Your task to perform on an android device: delete browsing data in the chrome app Image 0: 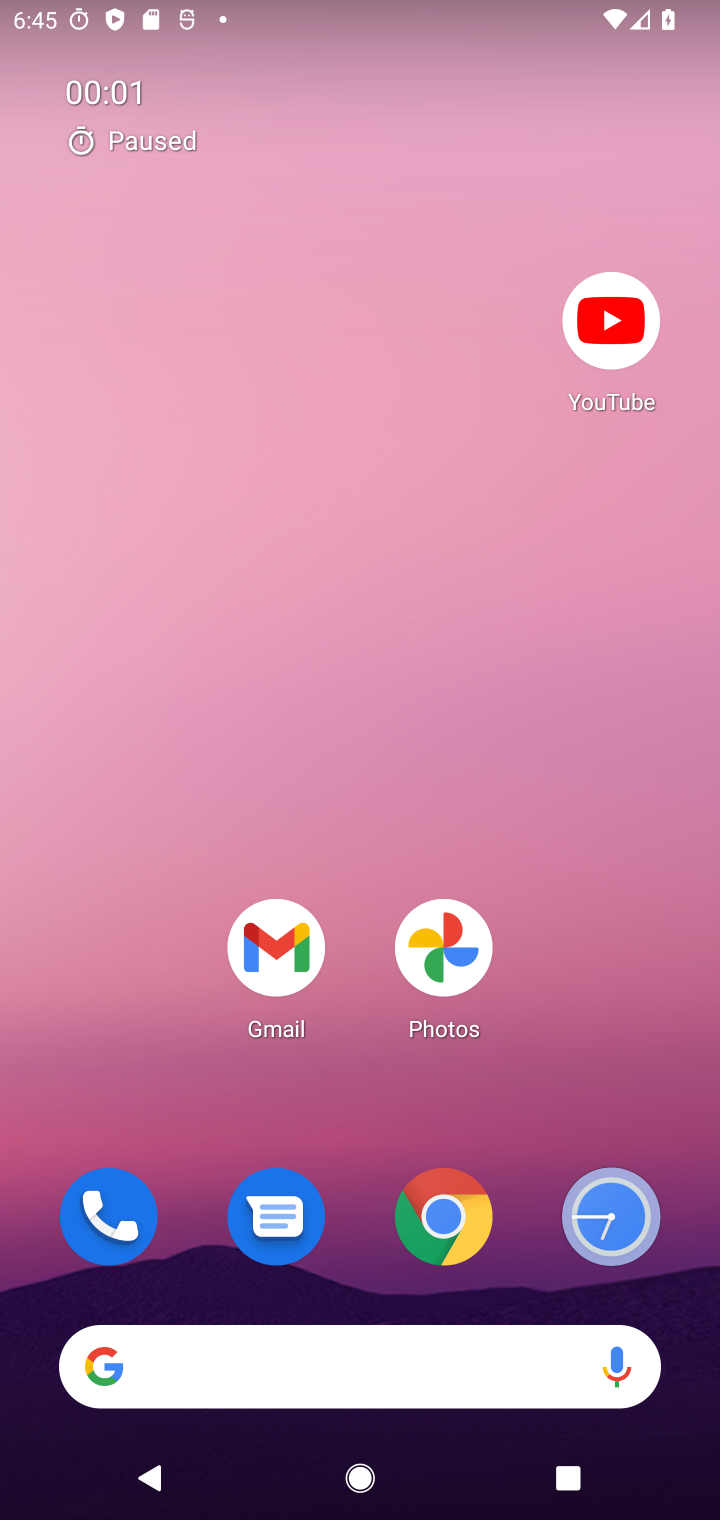
Step 0: drag from (591, 1030) to (515, 7)
Your task to perform on an android device: delete browsing data in the chrome app Image 1: 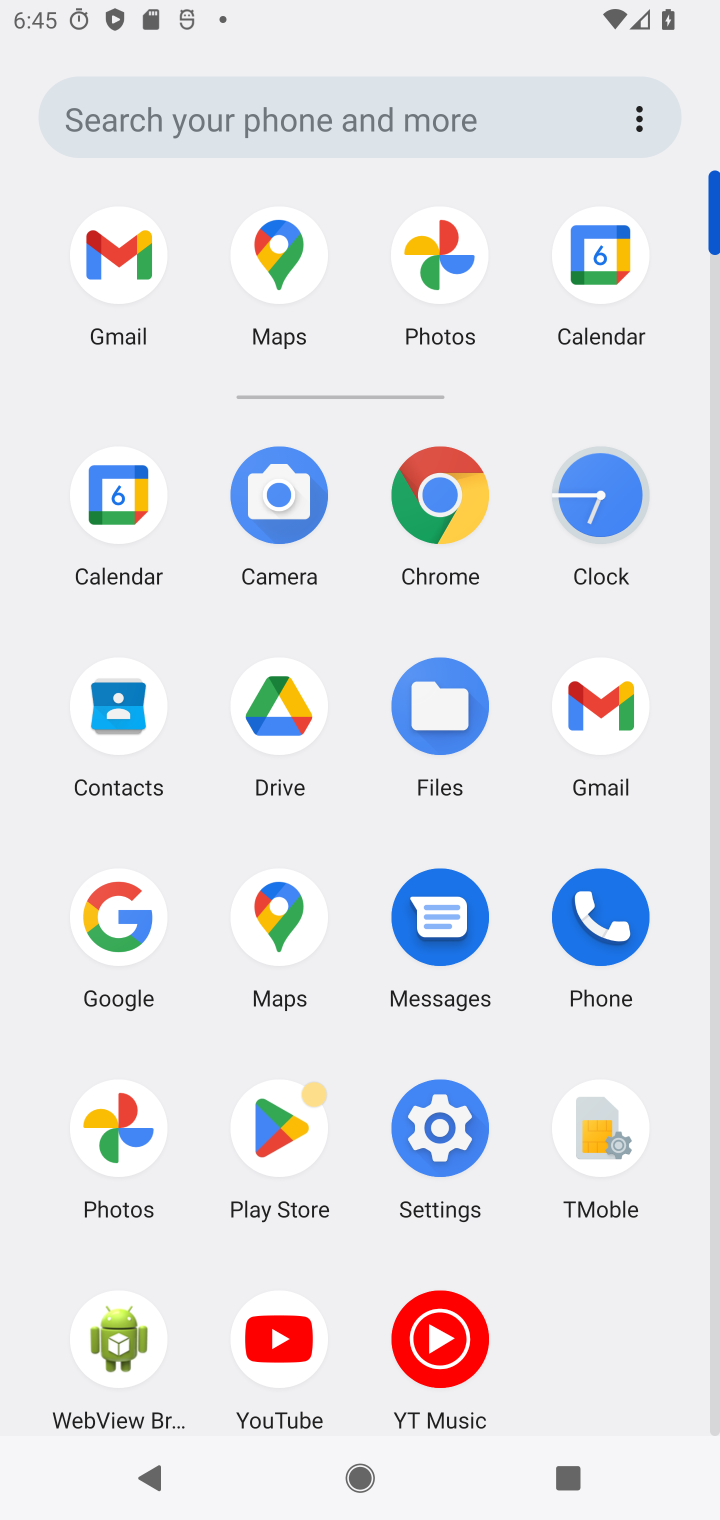
Step 1: click (444, 495)
Your task to perform on an android device: delete browsing data in the chrome app Image 2: 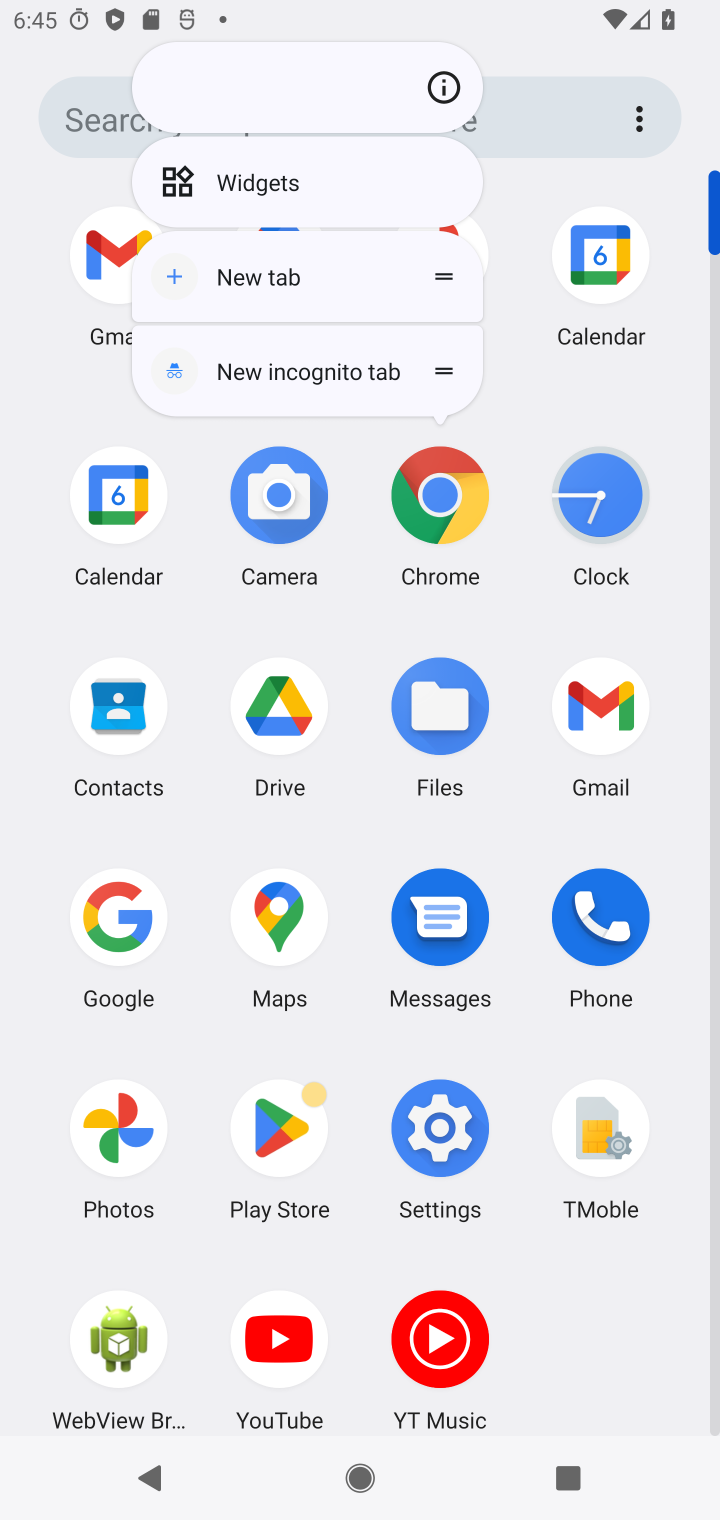
Step 2: click (444, 495)
Your task to perform on an android device: delete browsing data in the chrome app Image 3: 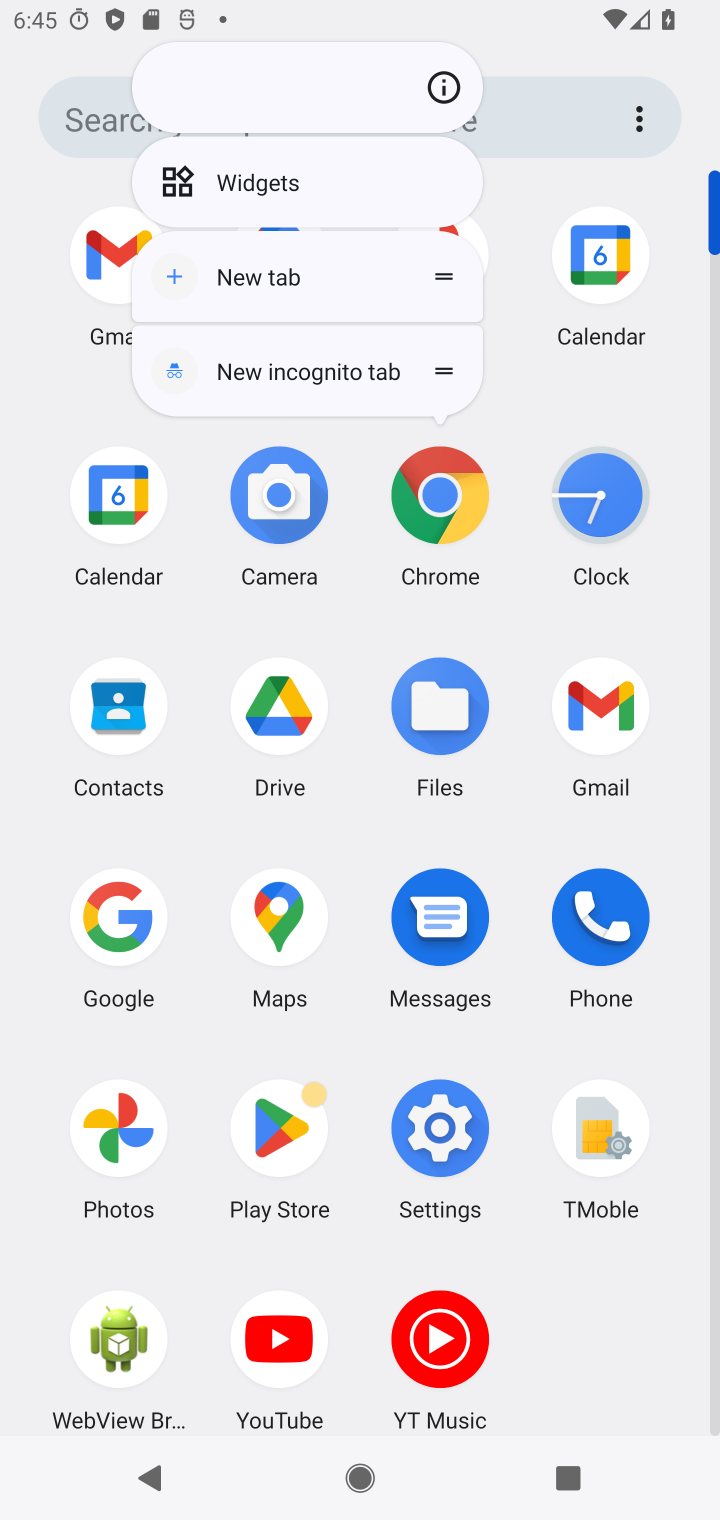
Step 3: click (338, 621)
Your task to perform on an android device: delete browsing data in the chrome app Image 4: 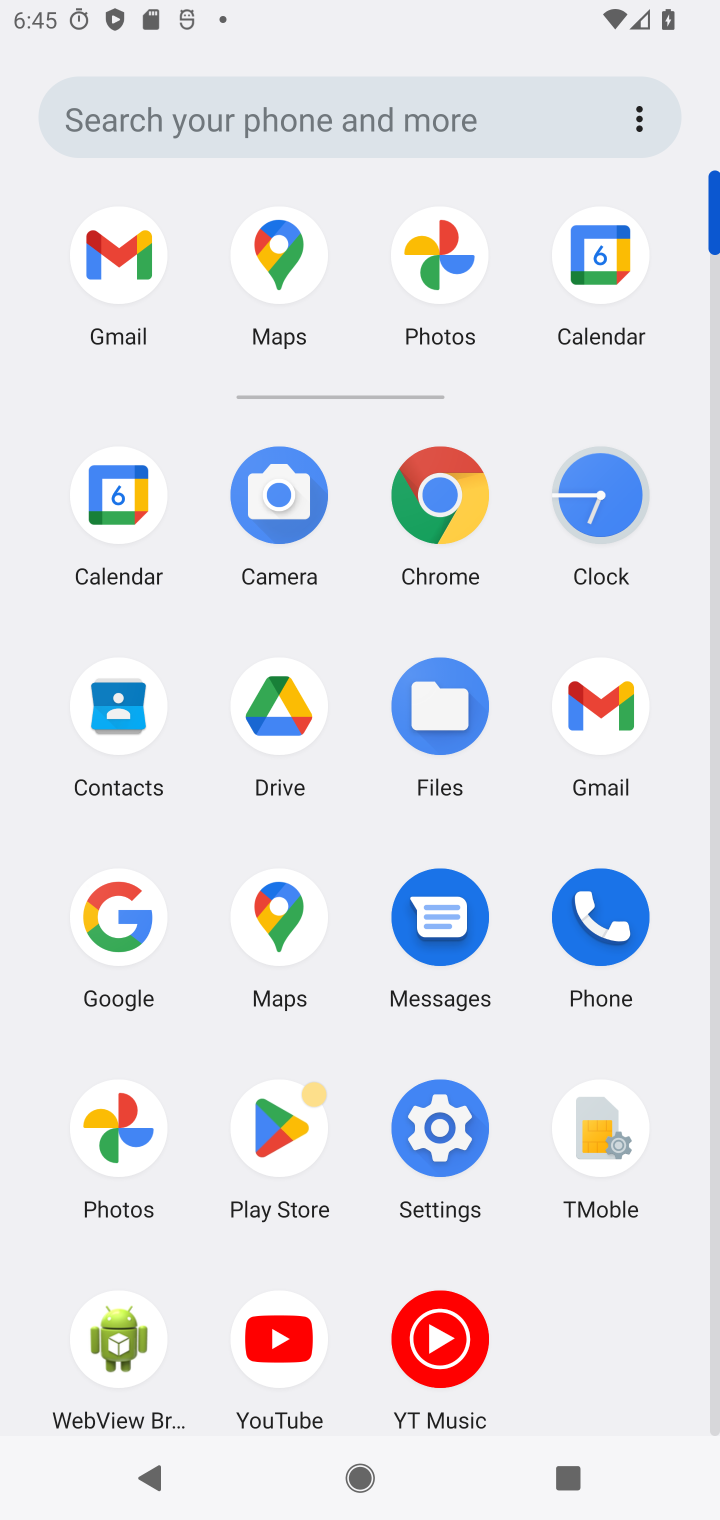
Step 4: click (442, 489)
Your task to perform on an android device: delete browsing data in the chrome app Image 5: 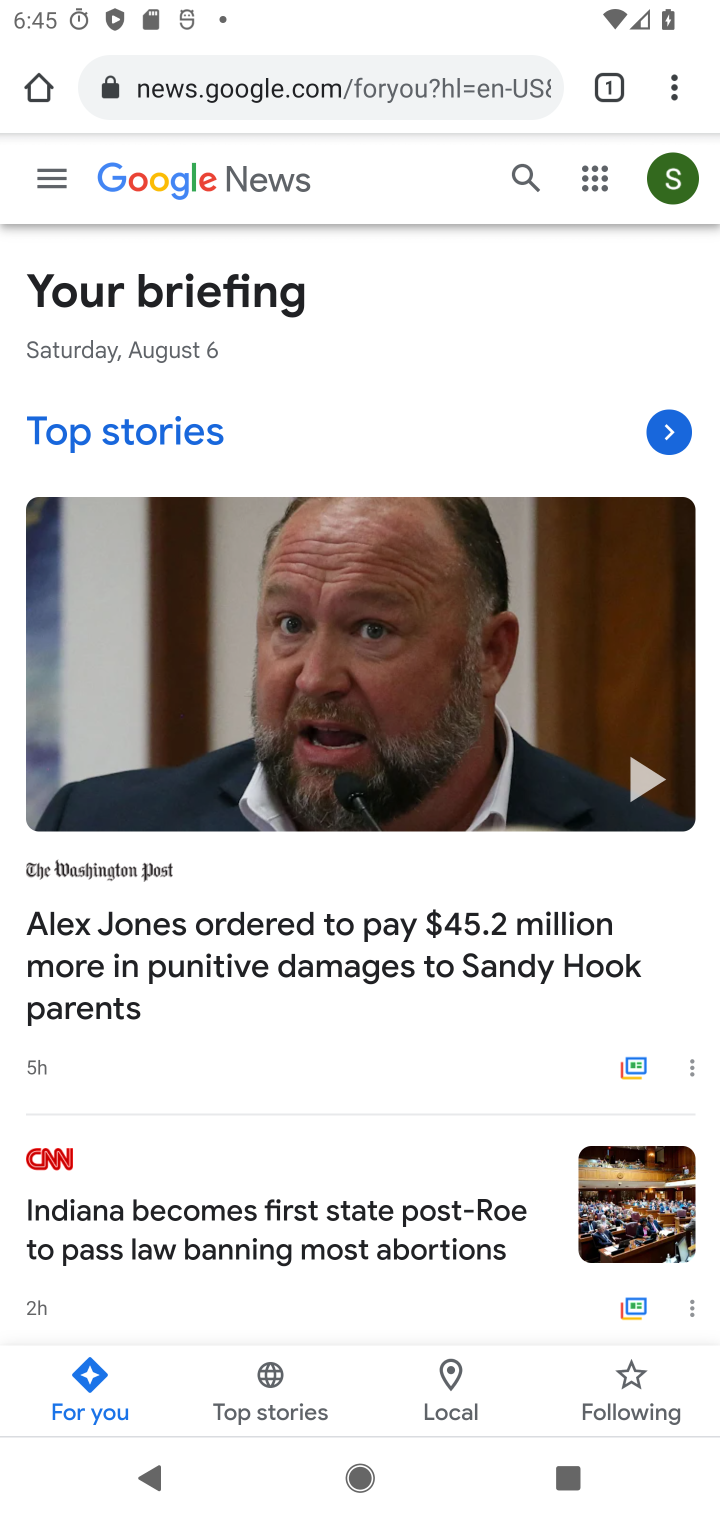
Step 5: drag from (677, 82) to (453, 456)
Your task to perform on an android device: delete browsing data in the chrome app Image 6: 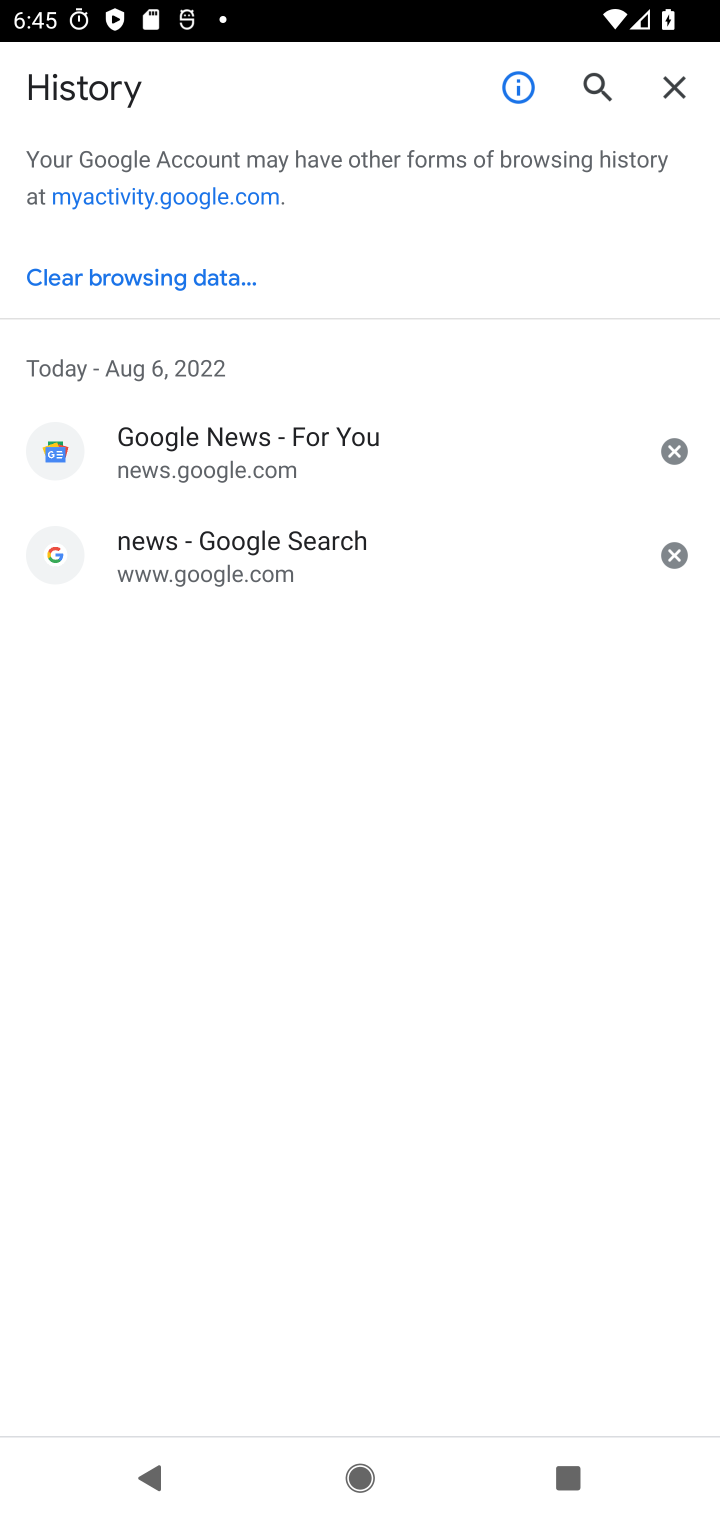
Step 6: click (169, 277)
Your task to perform on an android device: delete browsing data in the chrome app Image 7: 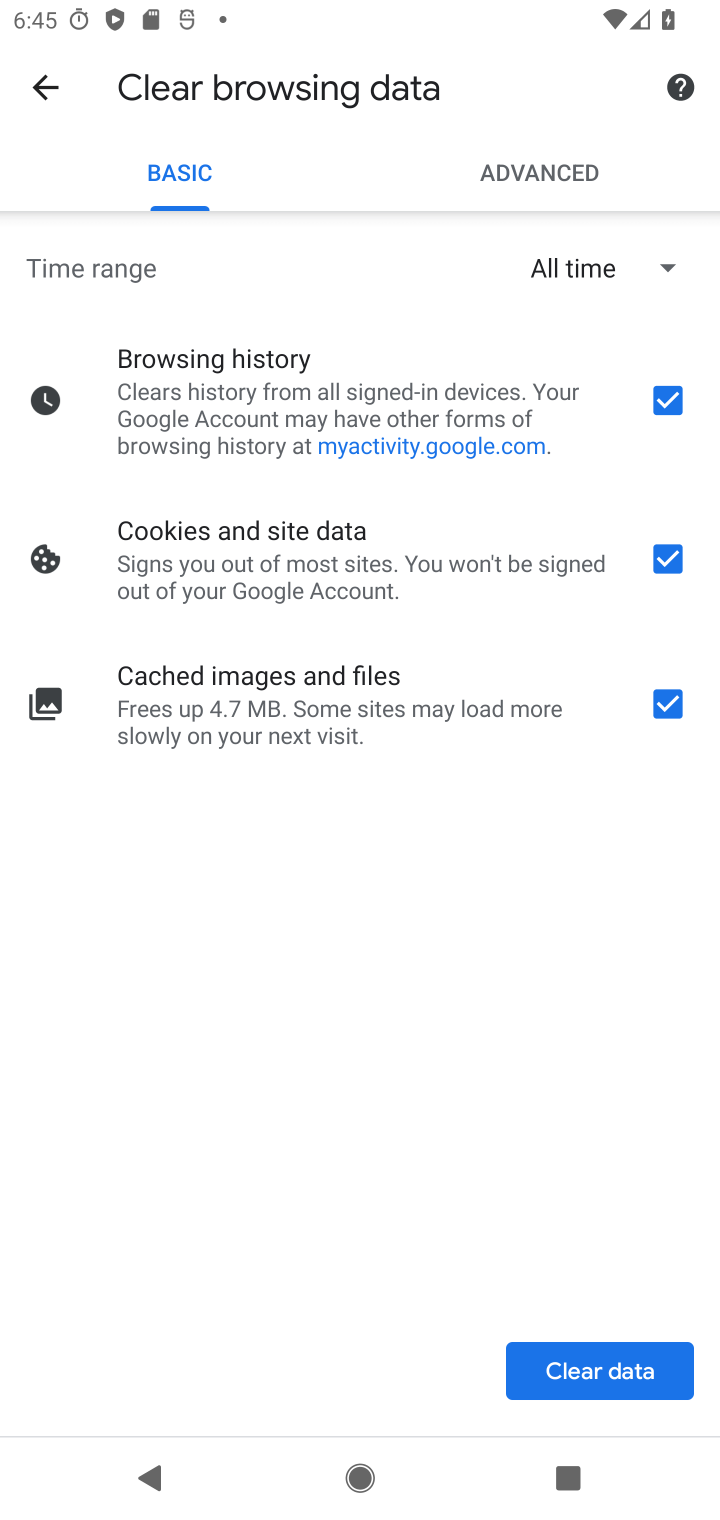
Step 7: click (610, 1374)
Your task to perform on an android device: delete browsing data in the chrome app Image 8: 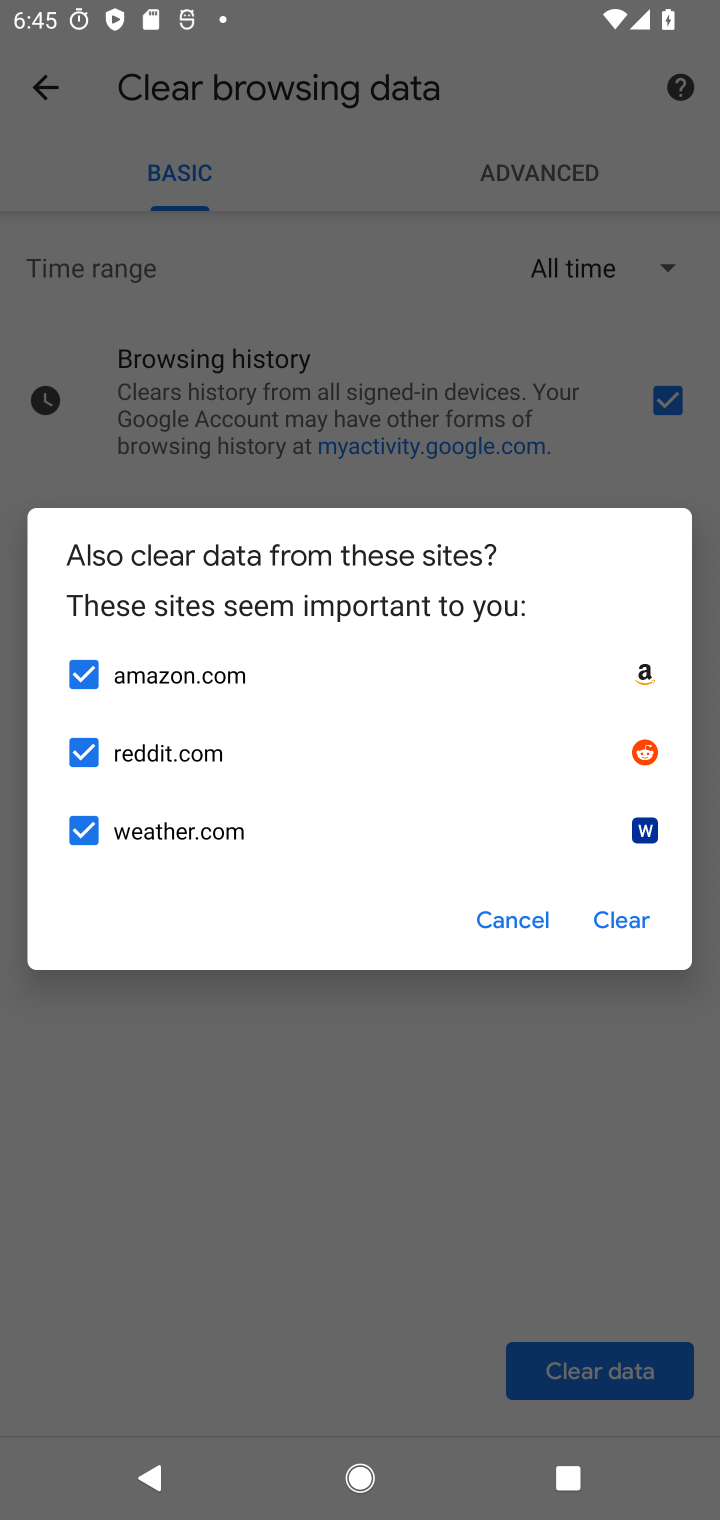
Step 8: click (621, 915)
Your task to perform on an android device: delete browsing data in the chrome app Image 9: 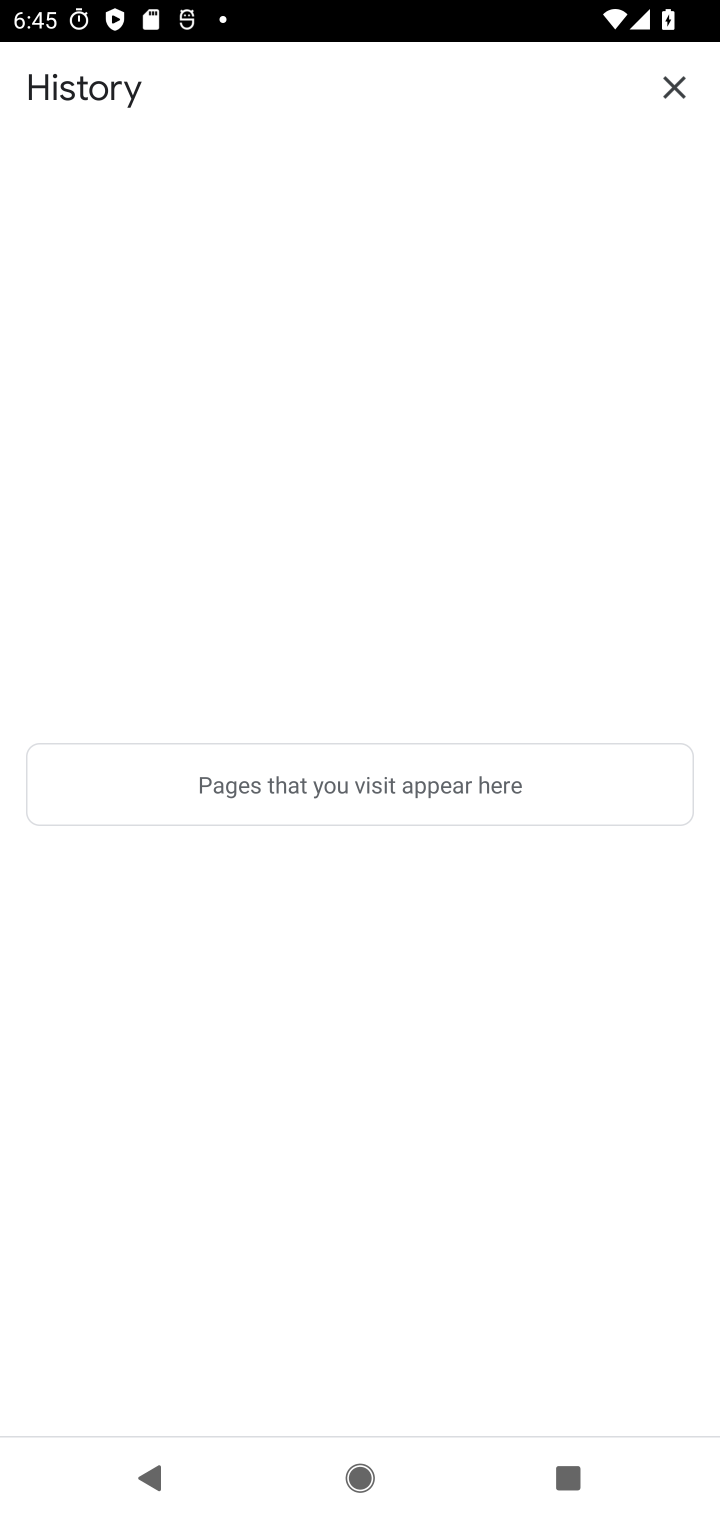
Step 9: task complete